Your task to perform on an android device: Search for seafood restaurants on Google Maps Image 0: 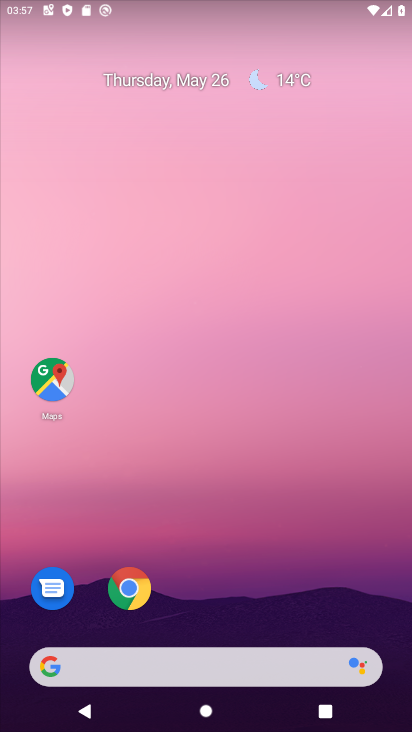
Step 0: click (269, 580)
Your task to perform on an android device: Search for seafood restaurants on Google Maps Image 1: 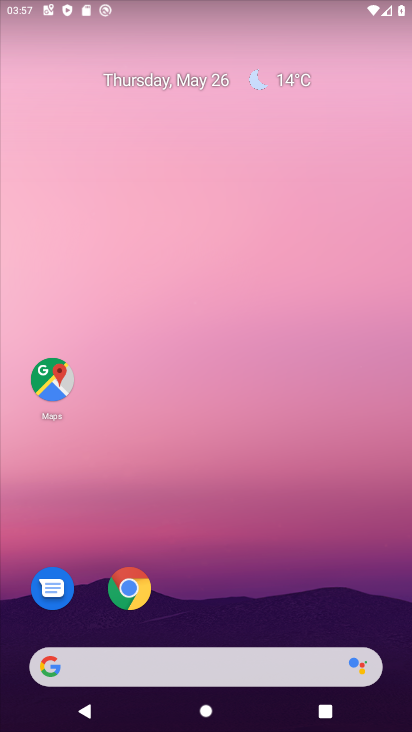
Step 1: click (68, 384)
Your task to perform on an android device: Search for seafood restaurants on Google Maps Image 2: 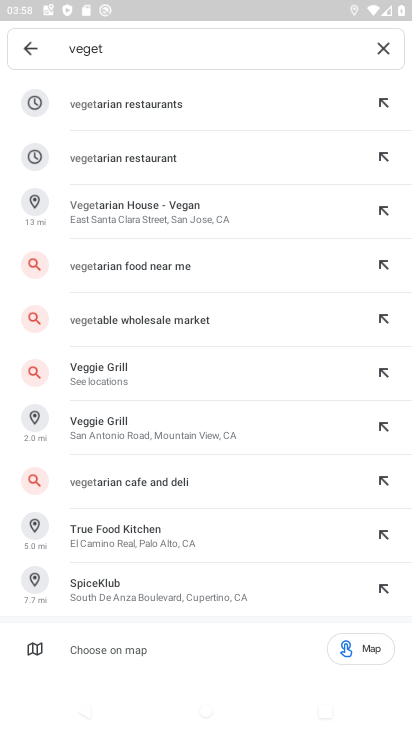
Step 2: click (382, 51)
Your task to perform on an android device: Search for seafood restaurants on Google Maps Image 3: 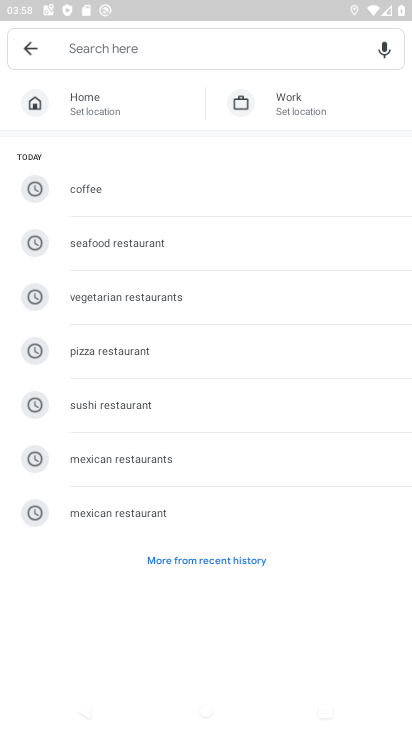
Step 3: click (221, 51)
Your task to perform on an android device: Search for seafood restaurants on Google Maps Image 4: 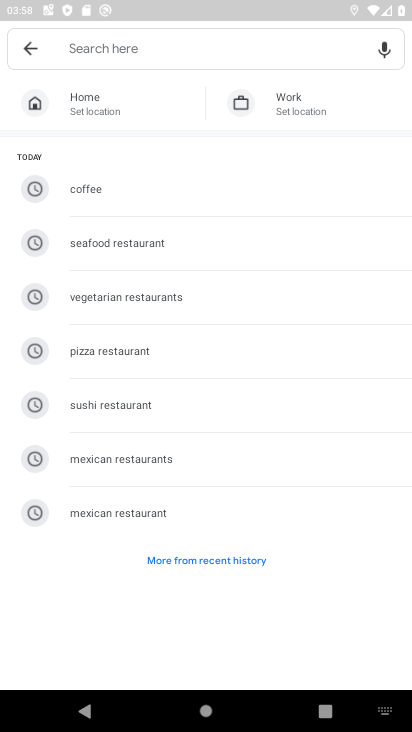
Step 4: click (197, 240)
Your task to perform on an android device: Search for seafood restaurants on Google Maps Image 5: 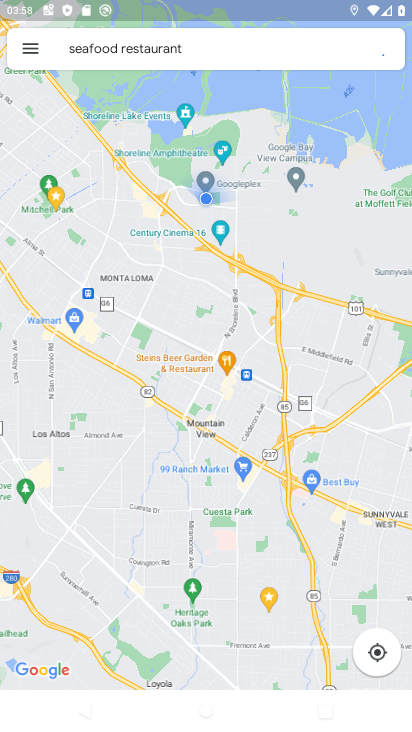
Step 5: task complete